Your task to perform on an android device: Go to Yahoo.com Image 0: 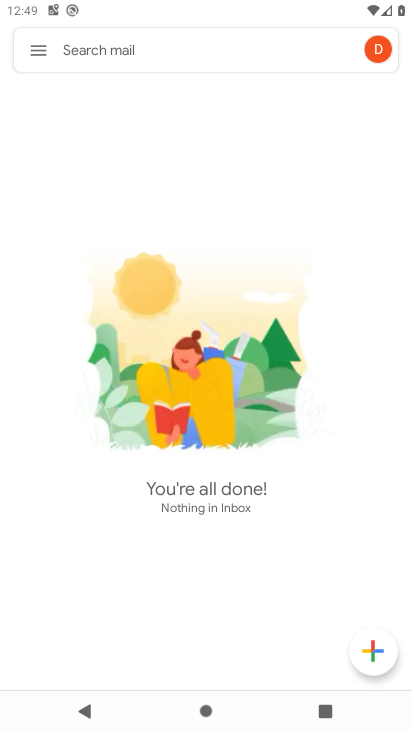
Step 0: click (209, 61)
Your task to perform on an android device: Go to Yahoo.com Image 1: 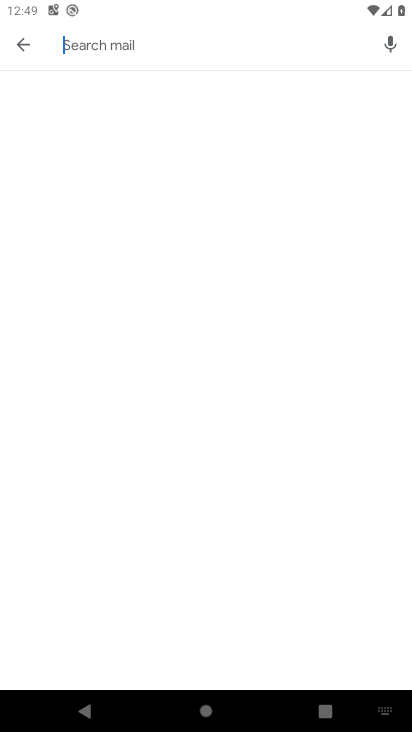
Step 1: drag from (264, 276) to (274, 197)
Your task to perform on an android device: Go to Yahoo.com Image 2: 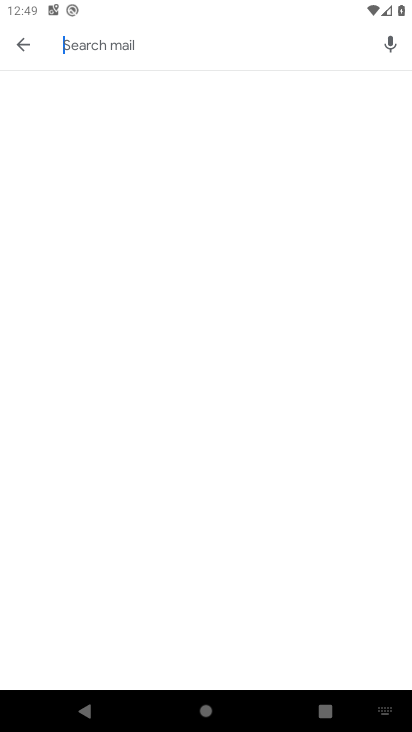
Step 2: click (31, 44)
Your task to perform on an android device: Go to Yahoo.com Image 3: 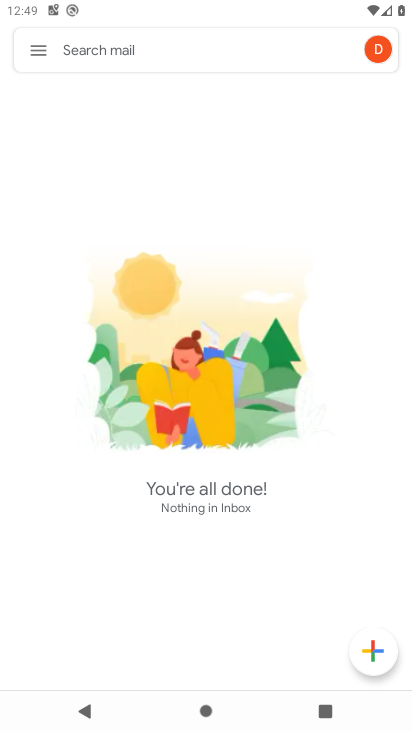
Step 3: press home button
Your task to perform on an android device: Go to Yahoo.com Image 4: 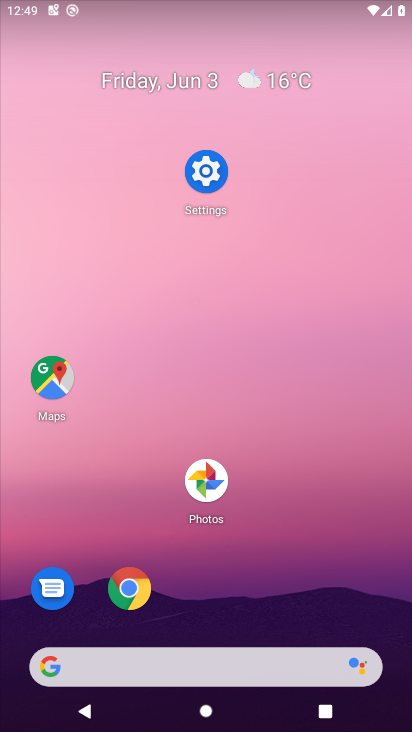
Step 4: drag from (207, 591) to (203, 251)
Your task to perform on an android device: Go to Yahoo.com Image 5: 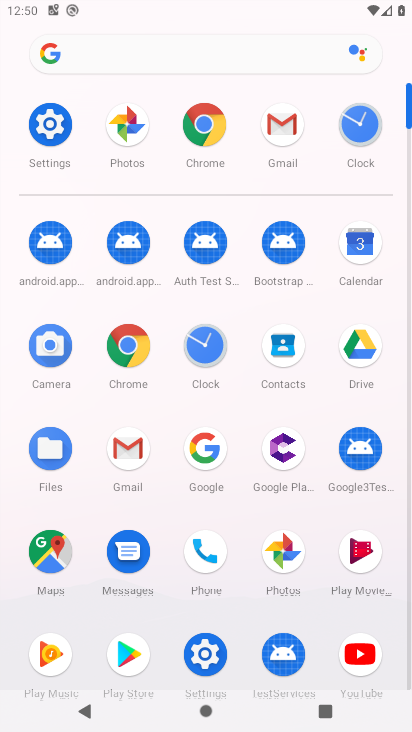
Step 5: click (206, 49)
Your task to perform on an android device: Go to Yahoo.com Image 6: 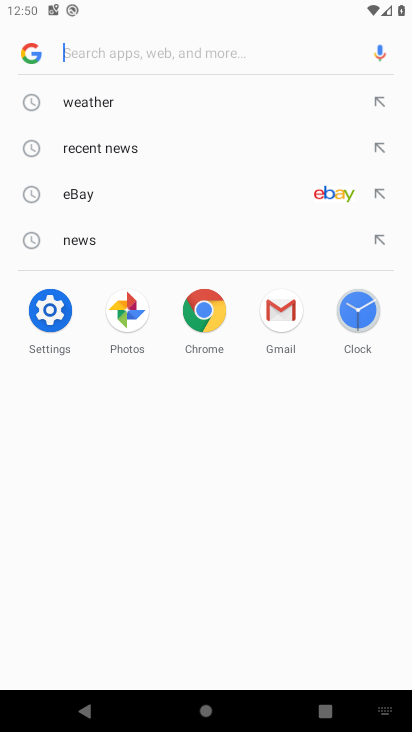
Step 6: type "Yahoo.com  Drive by Wire Research Data collection program. Mark task status:   Additional Actions:  Text input Type text here Episode stats: General:  Level name: dbw_hcp_launcher_prompt_list_v2 Logging mode: prod Step type: 1 Reward: 0.0 Cumulative Reward: 0.0 Simulator type: oxygen Screen density DPI: 140 Font scale factor: 1.0 Current package: com.google.android.apps.nexuslauncher Current activity: .NexusLauncherActivity Oxygen device region: europe-west Logged in account: dbwr.playstore.testing@gmail.com Frames per second (target): 10.0 (60.0) Max. possible frames per second: 9.9 Level extras:  current_activity: com.google.android.apps.nexuslauncher/.NexusLauncherActivity dataset_format: launcher_app_general_v3_format font_scale_factor: 1.0 goal_info: Go to Yahoo.com screen_density_dpi: 140 Environment task extras:"
Your task to perform on an android device: Go to Yahoo.com Image 7: 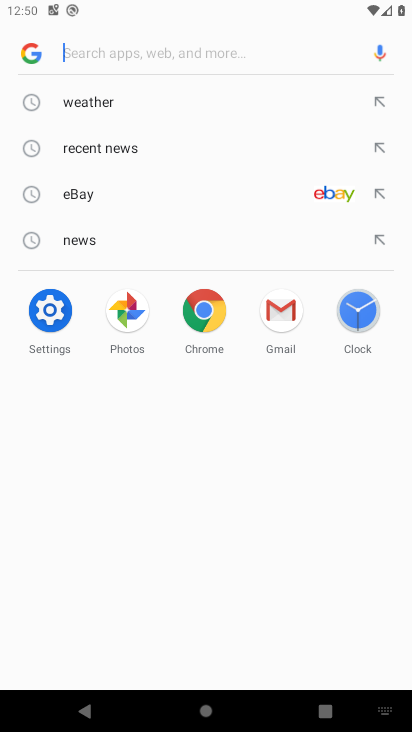
Step 7: click (96, 39)
Your task to perform on an android device: Go to Yahoo.com Image 8: 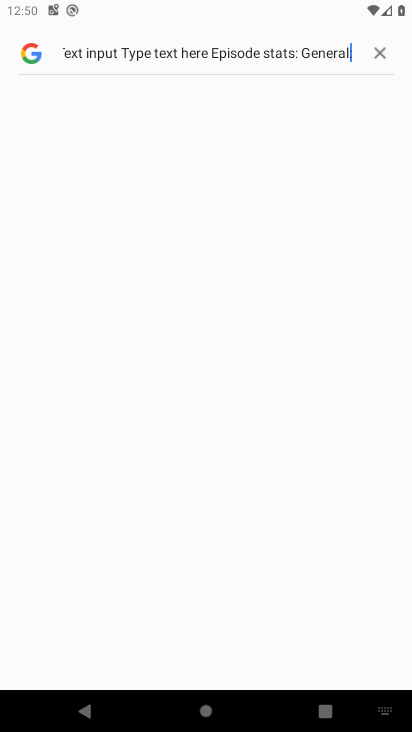
Step 8: type ""
Your task to perform on an android device: Go to Yahoo.com Image 9: 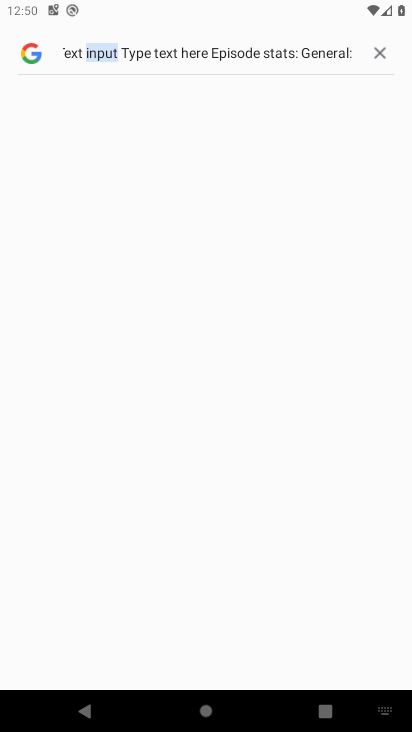
Step 9: type "Yahoo.com"
Your task to perform on an android device: Go to Yahoo.com Image 10: 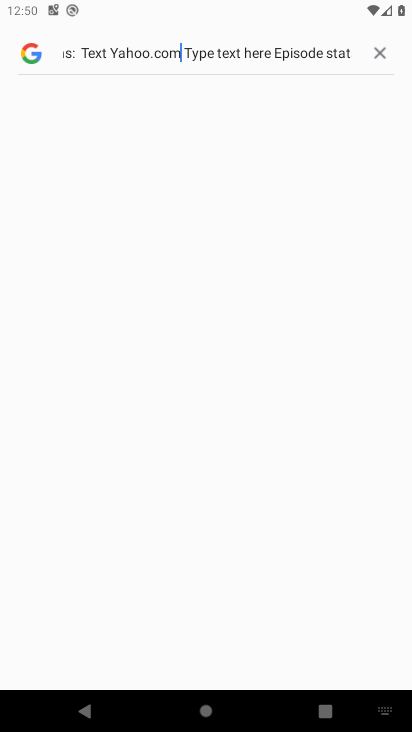
Step 10: click (374, 49)
Your task to perform on an android device: Go to Yahoo.com Image 11: 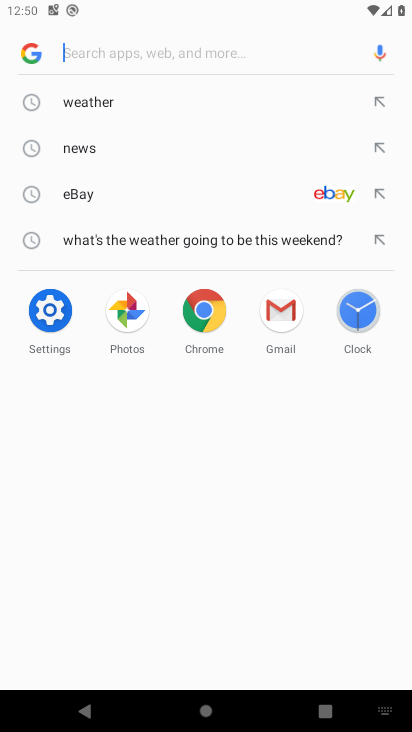
Step 11: type "Yahoo.com"
Your task to perform on an android device: Go to Yahoo.com Image 12: 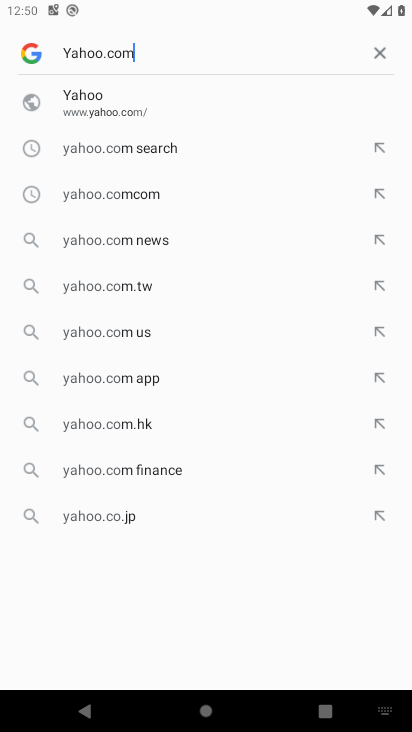
Step 12: type ""
Your task to perform on an android device: Go to Yahoo.com Image 13: 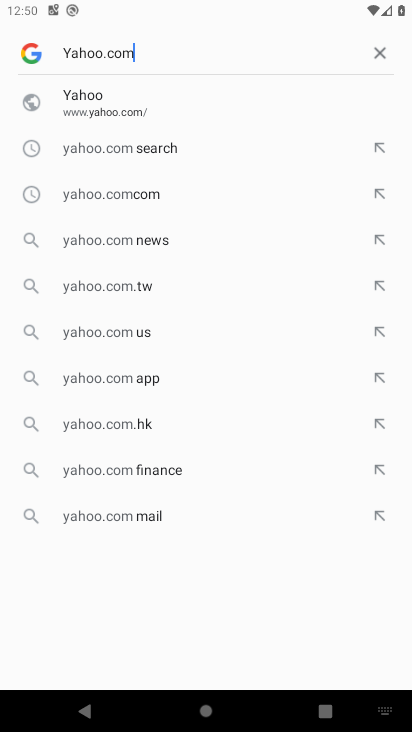
Step 13: click (104, 81)
Your task to perform on an android device: Go to Yahoo.com Image 14: 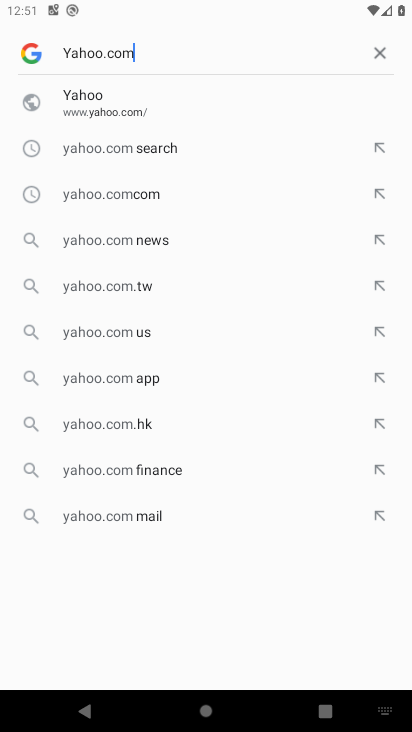
Step 14: click (93, 113)
Your task to perform on an android device: Go to Yahoo.com Image 15: 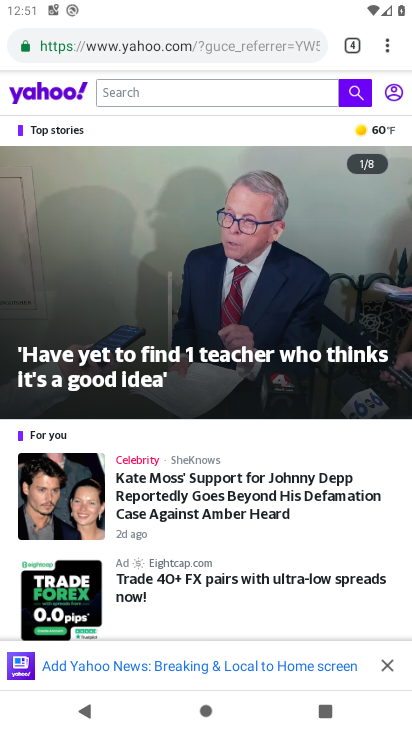
Step 15: task complete